Your task to perform on an android device: Show me popular videos on Youtube Image 0: 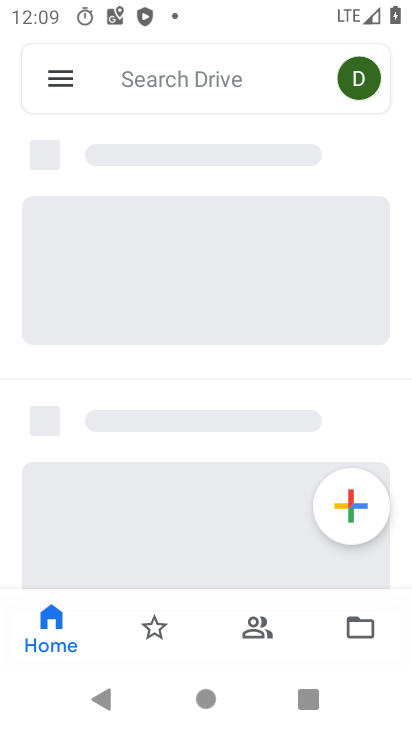
Step 0: press home button
Your task to perform on an android device: Show me popular videos on Youtube Image 1: 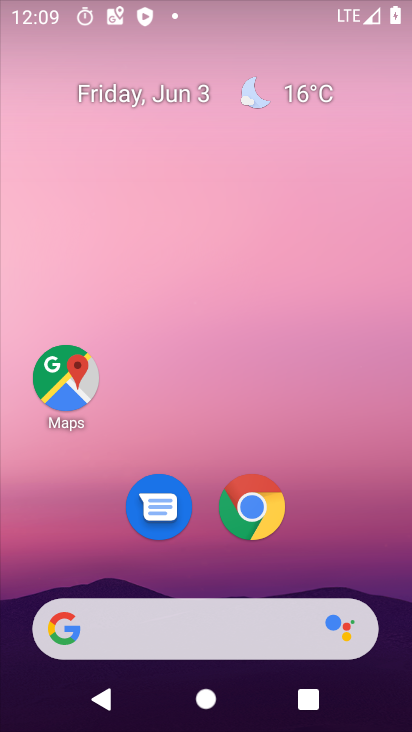
Step 1: drag from (385, 626) to (319, 142)
Your task to perform on an android device: Show me popular videos on Youtube Image 2: 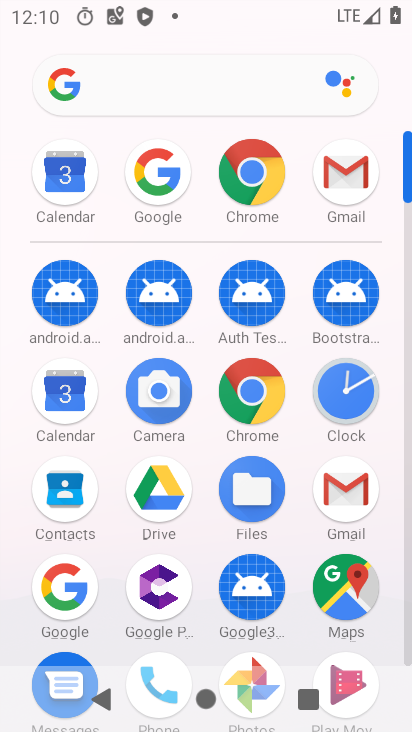
Step 2: drag from (205, 494) to (187, 123)
Your task to perform on an android device: Show me popular videos on Youtube Image 3: 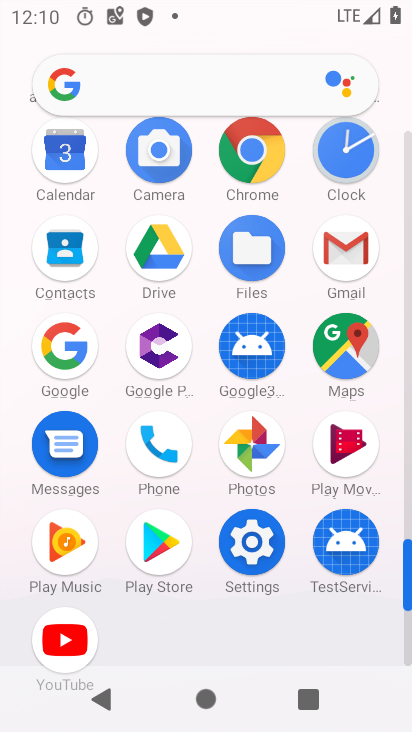
Step 3: click (62, 635)
Your task to perform on an android device: Show me popular videos on Youtube Image 4: 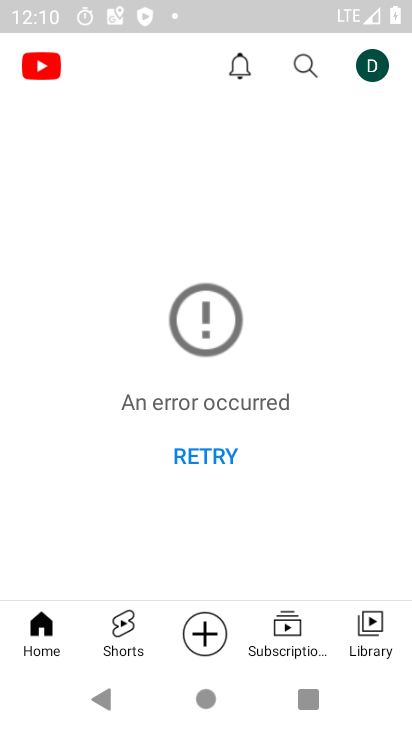
Step 4: click (224, 457)
Your task to perform on an android device: Show me popular videos on Youtube Image 5: 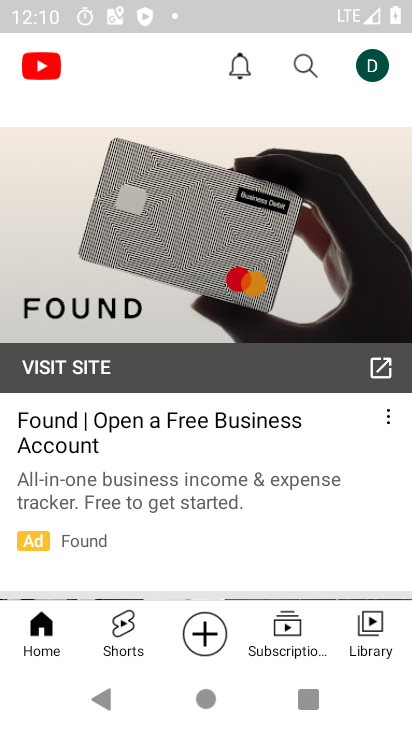
Step 5: task complete